Your task to perform on an android device: Go to Google maps Image 0: 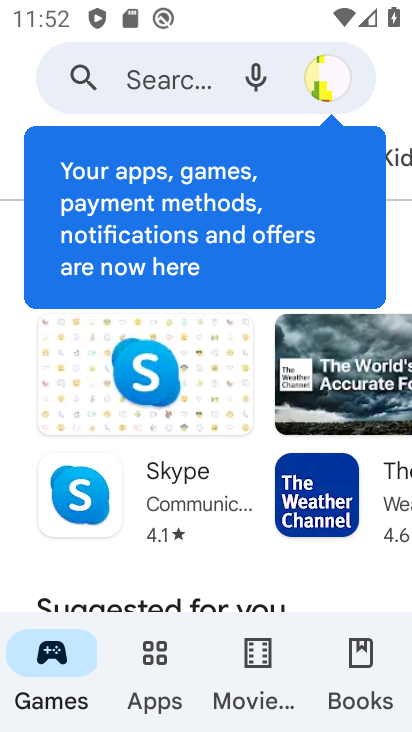
Step 0: press home button
Your task to perform on an android device: Go to Google maps Image 1: 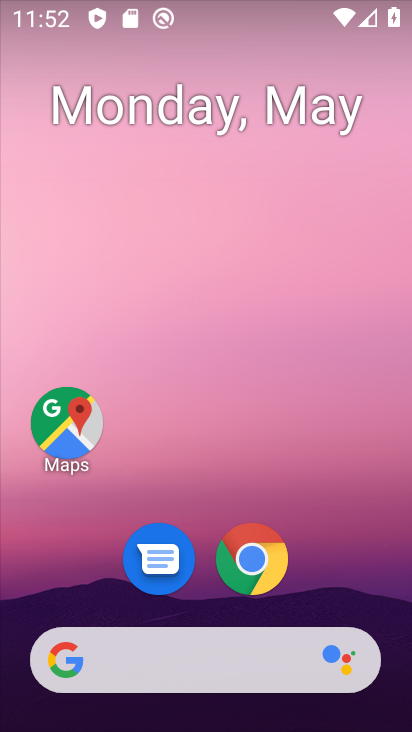
Step 1: drag from (77, 615) to (187, 83)
Your task to perform on an android device: Go to Google maps Image 2: 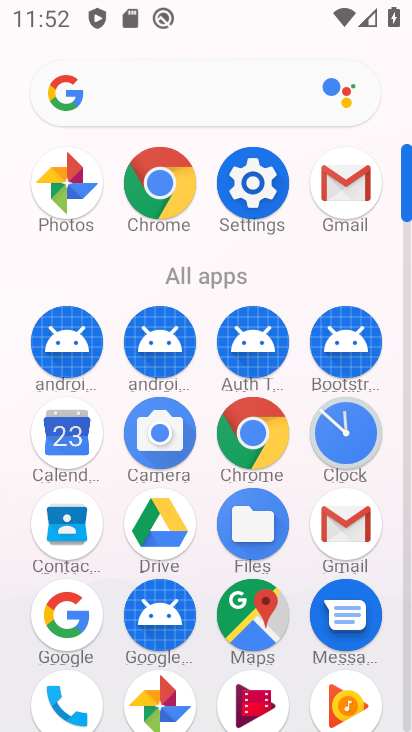
Step 2: click (271, 618)
Your task to perform on an android device: Go to Google maps Image 3: 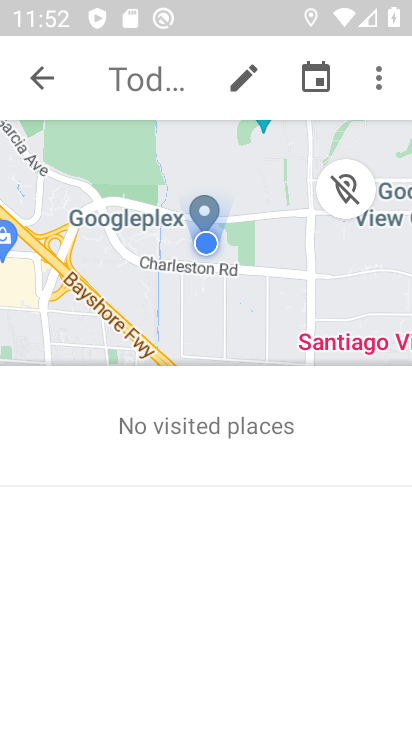
Step 3: task complete